Your task to perform on an android device: Open Amazon Image 0: 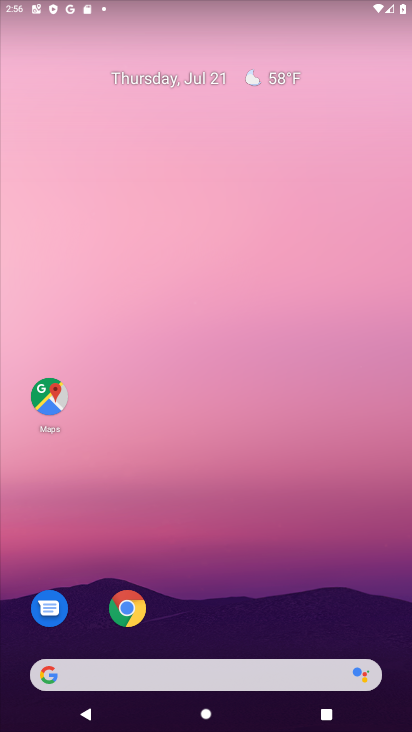
Step 0: press home button
Your task to perform on an android device: Open Amazon Image 1: 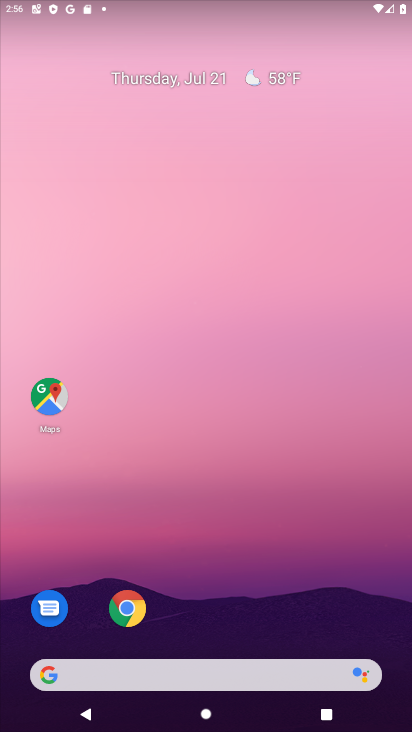
Step 1: click (121, 603)
Your task to perform on an android device: Open Amazon Image 2: 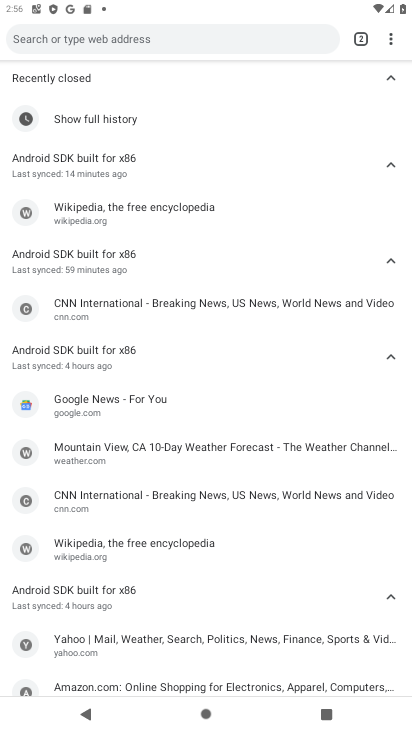
Step 2: click (362, 37)
Your task to perform on an android device: Open Amazon Image 3: 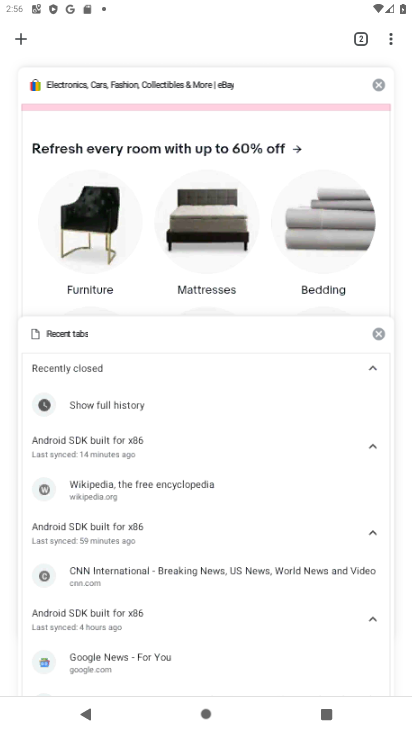
Step 3: click (17, 37)
Your task to perform on an android device: Open Amazon Image 4: 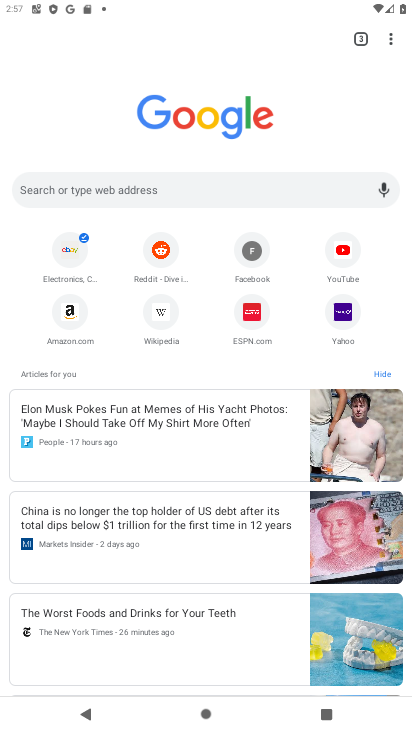
Step 4: click (69, 307)
Your task to perform on an android device: Open Amazon Image 5: 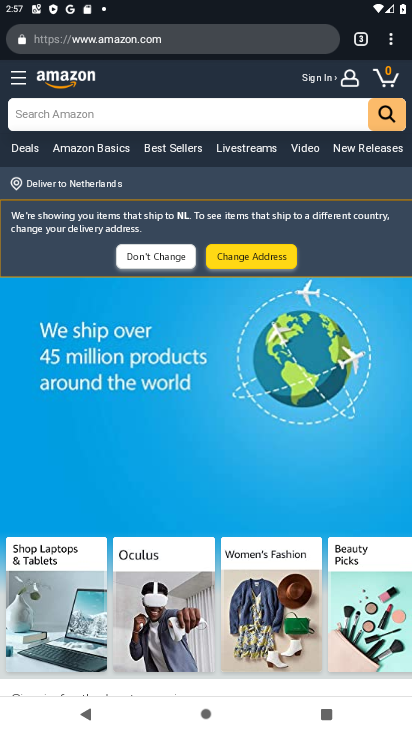
Step 5: task complete